Your task to perform on an android device: Go to notification settings Image 0: 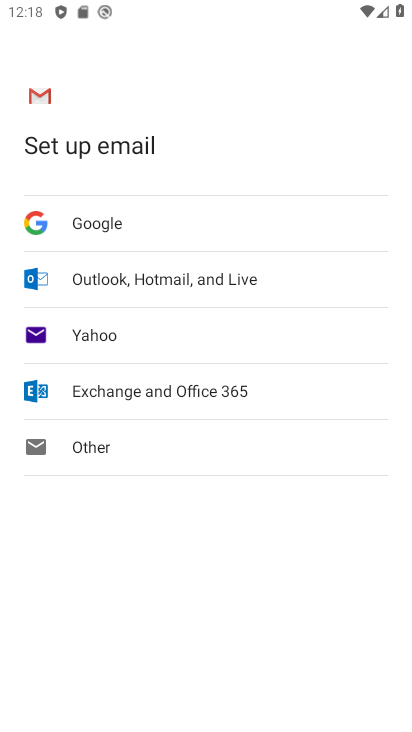
Step 0: press home button
Your task to perform on an android device: Go to notification settings Image 1: 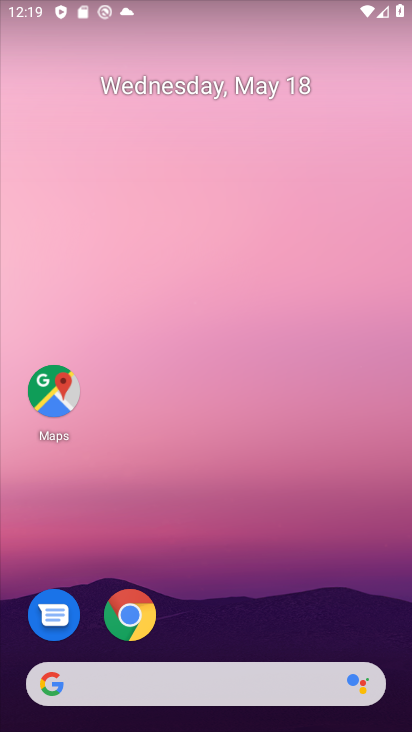
Step 1: drag from (206, 591) to (120, 144)
Your task to perform on an android device: Go to notification settings Image 2: 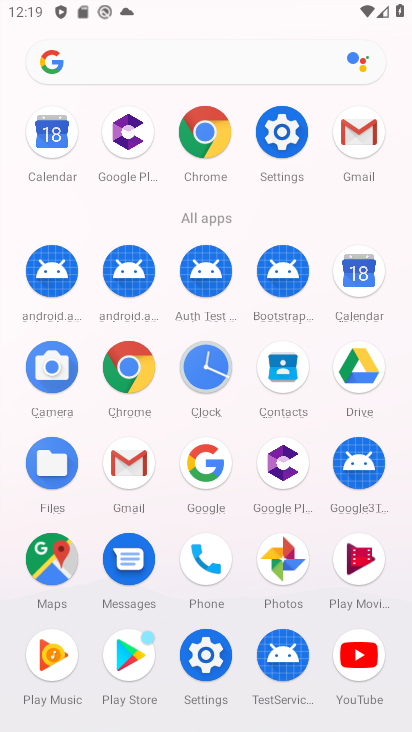
Step 2: click (204, 666)
Your task to perform on an android device: Go to notification settings Image 3: 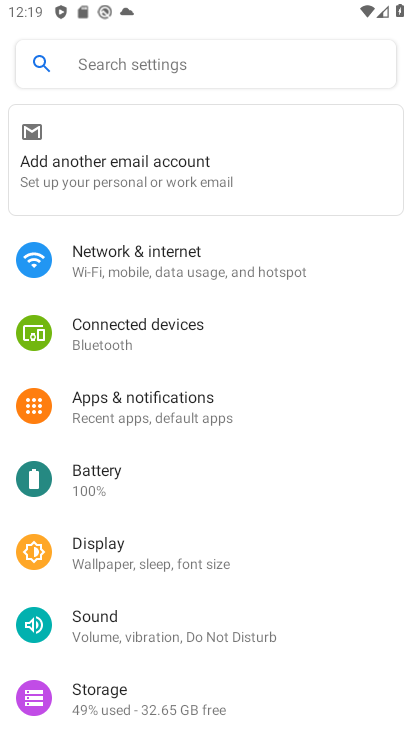
Step 3: click (173, 416)
Your task to perform on an android device: Go to notification settings Image 4: 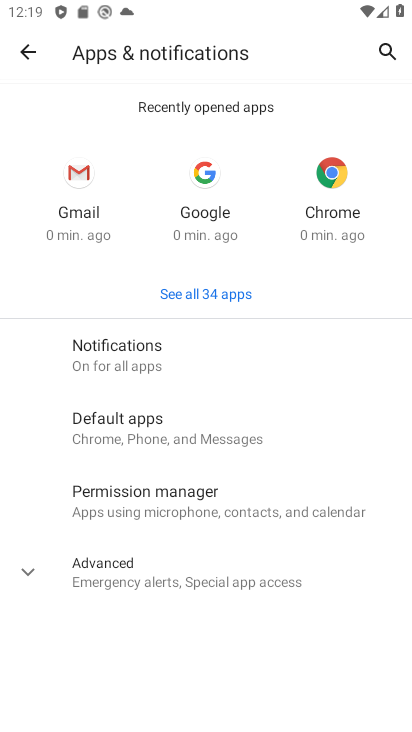
Step 4: click (91, 357)
Your task to perform on an android device: Go to notification settings Image 5: 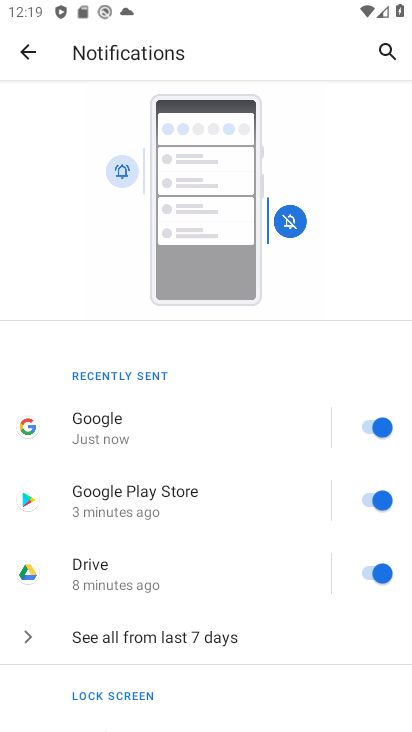
Step 5: task complete